Your task to perform on an android device: Search for 3d printed chess sets on Etsy. Image 0: 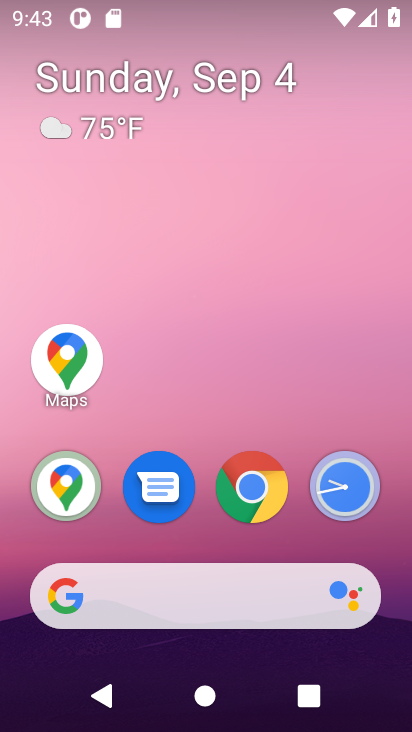
Step 0: click (82, 490)
Your task to perform on an android device: Search for 3d printed chess sets on Etsy. Image 1: 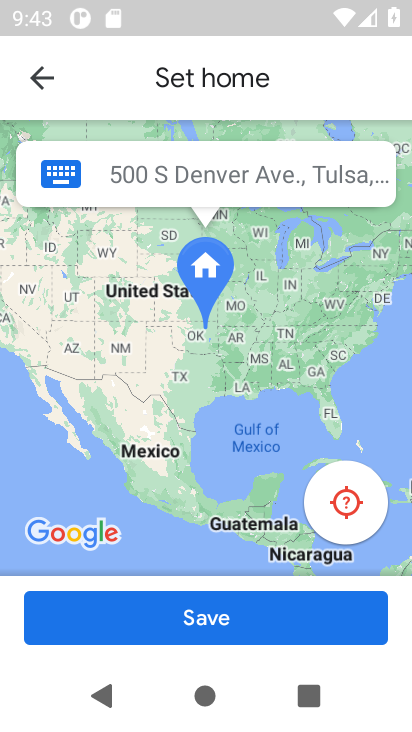
Step 1: task complete